Your task to perform on an android device: Search for pizza restaurants on Maps Image 0: 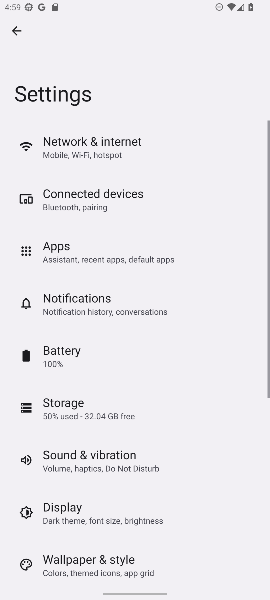
Step 0: drag from (133, 524) to (150, 118)
Your task to perform on an android device: Search for pizza restaurants on Maps Image 1: 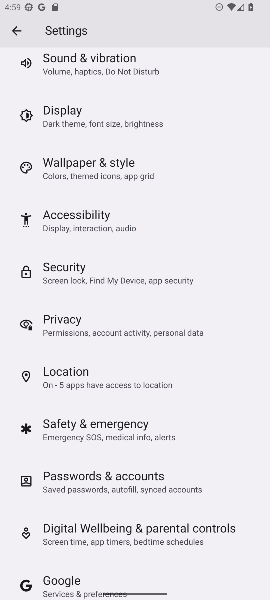
Step 1: drag from (102, 493) to (171, 274)
Your task to perform on an android device: Search for pizza restaurants on Maps Image 2: 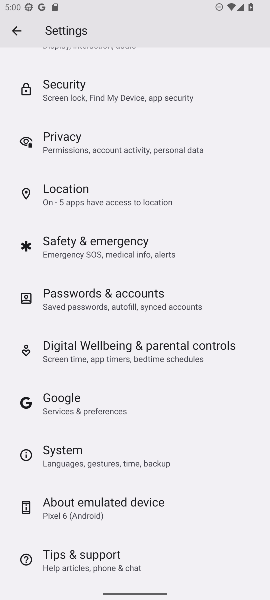
Step 2: drag from (115, 450) to (173, 227)
Your task to perform on an android device: Search for pizza restaurants on Maps Image 3: 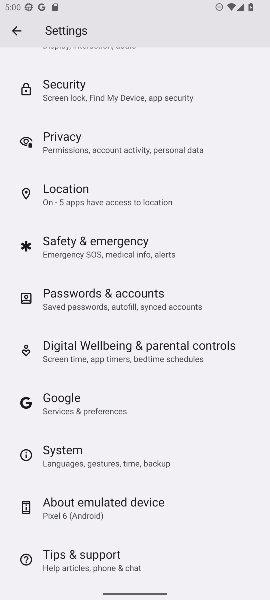
Step 3: press home button
Your task to perform on an android device: Search for pizza restaurants on Maps Image 4: 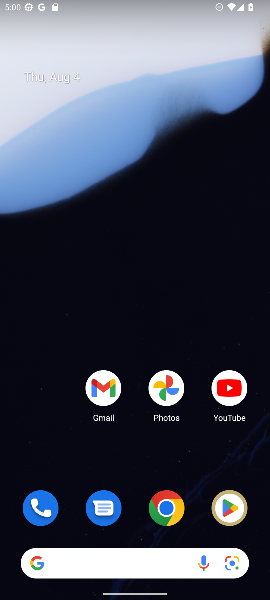
Step 4: drag from (108, 501) to (159, 209)
Your task to perform on an android device: Search for pizza restaurants on Maps Image 5: 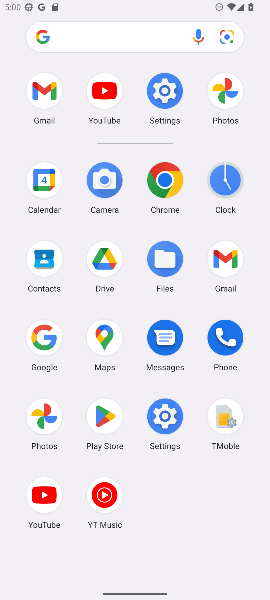
Step 5: click (109, 328)
Your task to perform on an android device: Search for pizza restaurants on Maps Image 6: 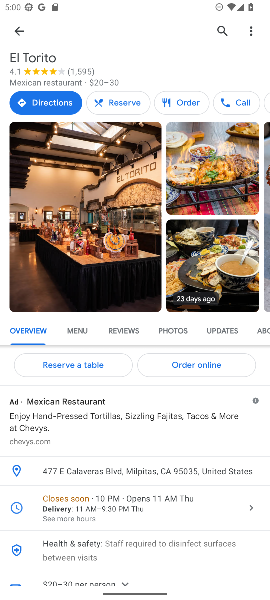
Step 6: click (219, 25)
Your task to perform on an android device: Search for pizza restaurants on Maps Image 7: 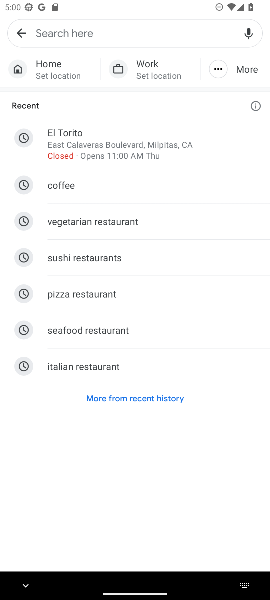
Step 7: click (61, 290)
Your task to perform on an android device: Search for pizza restaurants on Maps Image 8: 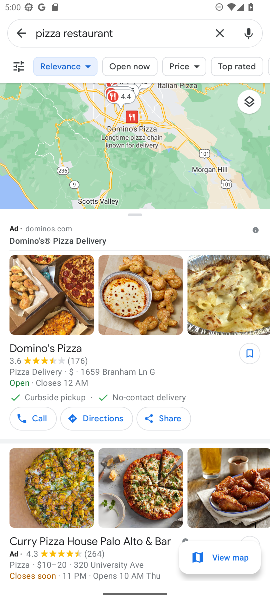
Step 8: task complete